Your task to perform on an android device: Open privacy settings Image 0: 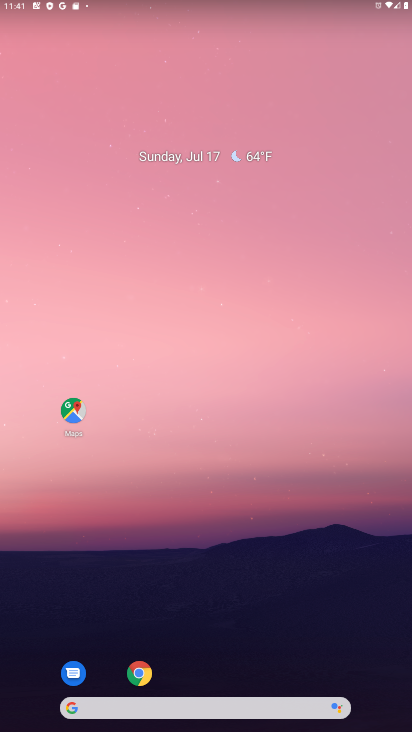
Step 0: drag from (234, 653) to (267, 66)
Your task to perform on an android device: Open privacy settings Image 1: 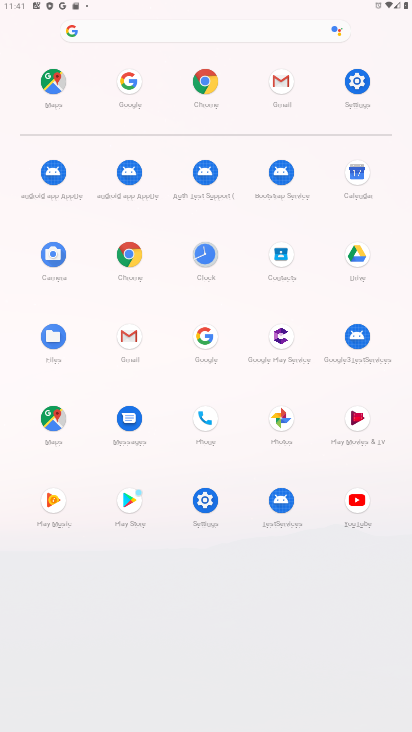
Step 1: click (207, 503)
Your task to perform on an android device: Open privacy settings Image 2: 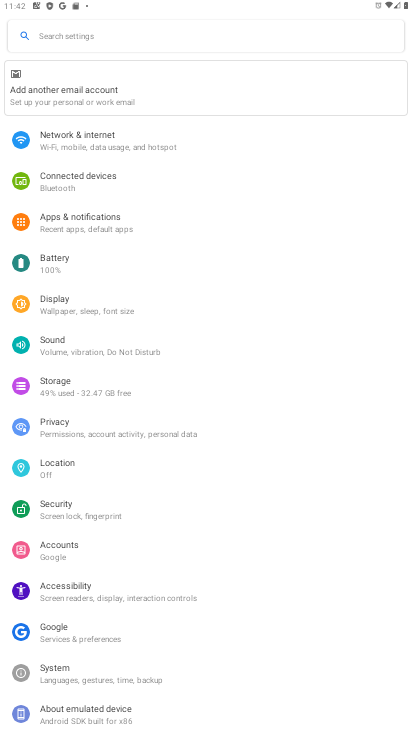
Step 2: click (55, 422)
Your task to perform on an android device: Open privacy settings Image 3: 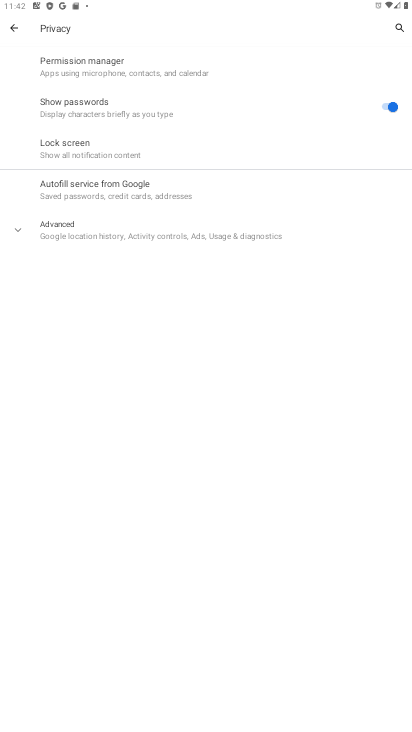
Step 3: task complete